Your task to perform on an android device: turn off location Image 0: 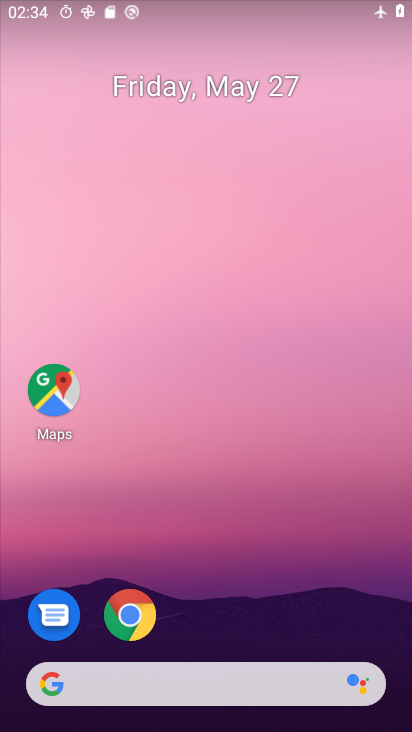
Step 0: drag from (371, 612) to (372, 241)
Your task to perform on an android device: turn off location Image 1: 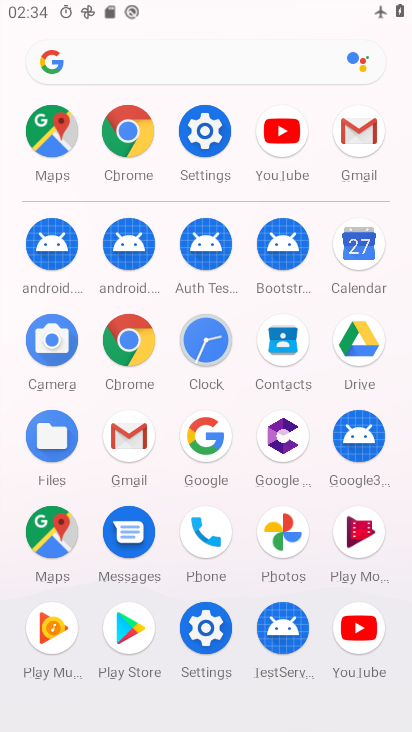
Step 1: click (202, 631)
Your task to perform on an android device: turn off location Image 2: 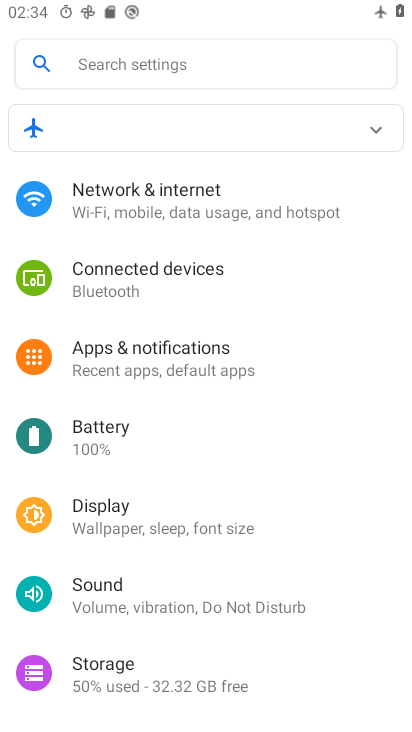
Step 2: drag from (331, 644) to (330, 520)
Your task to perform on an android device: turn off location Image 3: 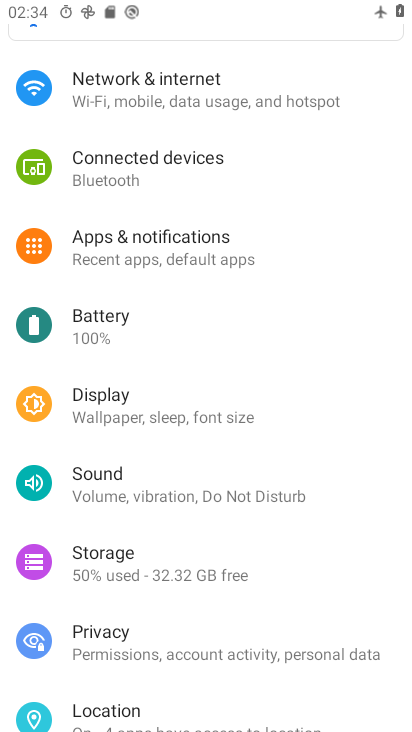
Step 3: drag from (328, 632) to (330, 528)
Your task to perform on an android device: turn off location Image 4: 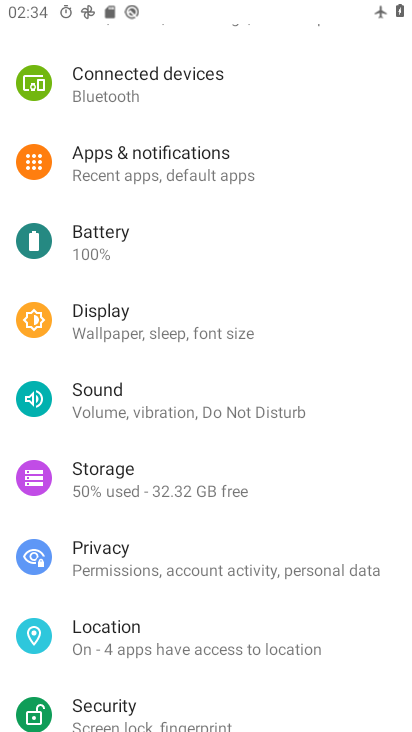
Step 4: drag from (351, 649) to (355, 519)
Your task to perform on an android device: turn off location Image 5: 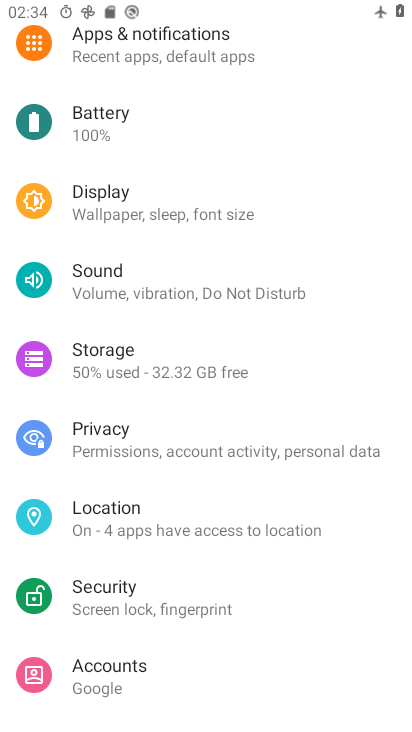
Step 5: drag from (349, 618) to (357, 512)
Your task to perform on an android device: turn off location Image 6: 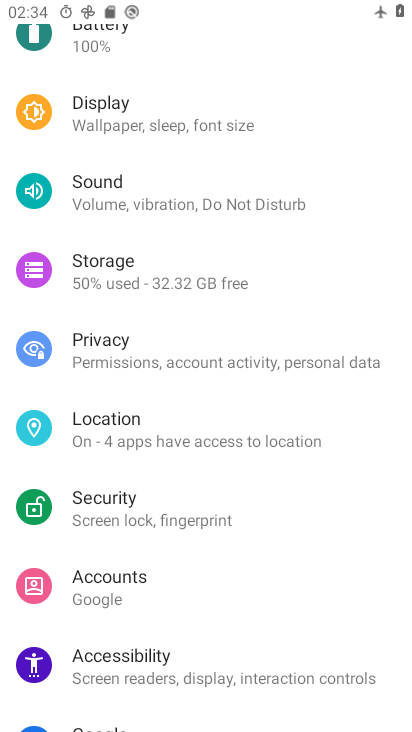
Step 6: drag from (359, 640) to (360, 517)
Your task to perform on an android device: turn off location Image 7: 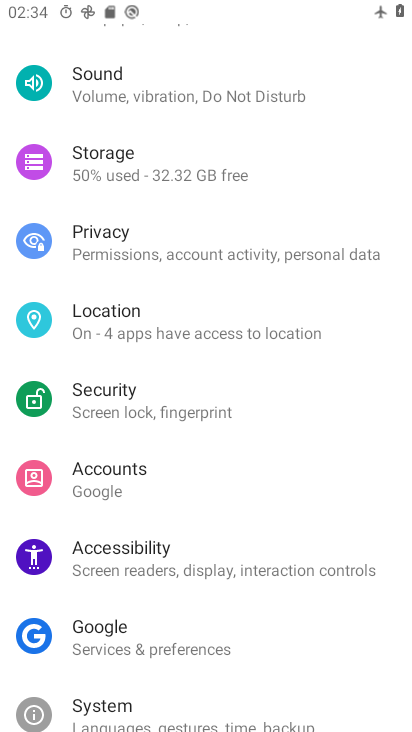
Step 7: drag from (367, 624) to (364, 462)
Your task to perform on an android device: turn off location Image 8: 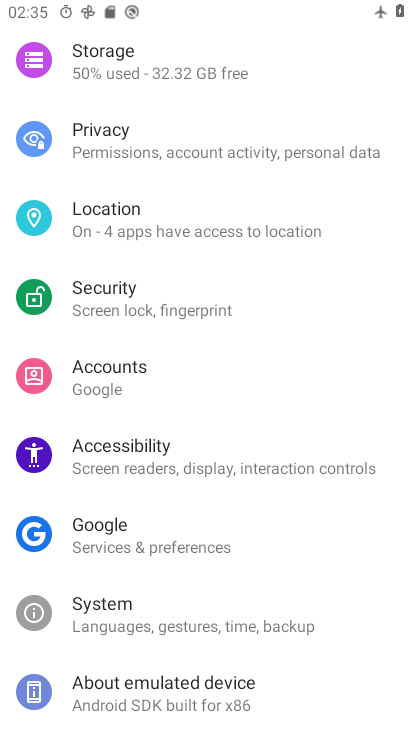
Step 8: drag from (366, 644) to (362, 397)
Your task to perform on an android device: turn off location Image 9: 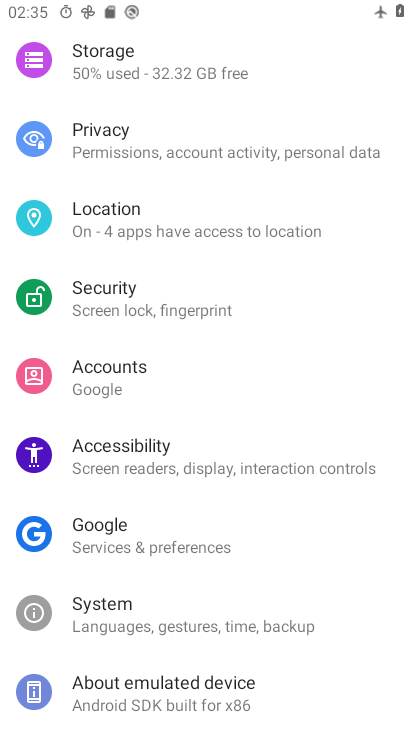
Step 9: drag from (368, 356) to (344, 519)
Your task to perform on an android device: turn off location Image 10: 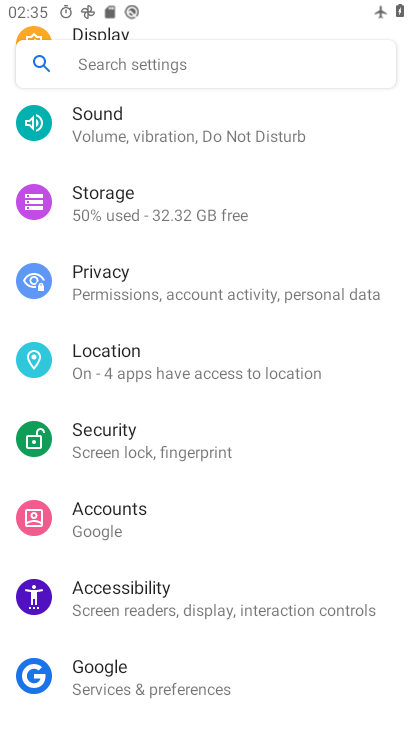
Step 10: drag from (343, 336) to (331, 496)
Your task to perform on an android device: turn off location Image 11: 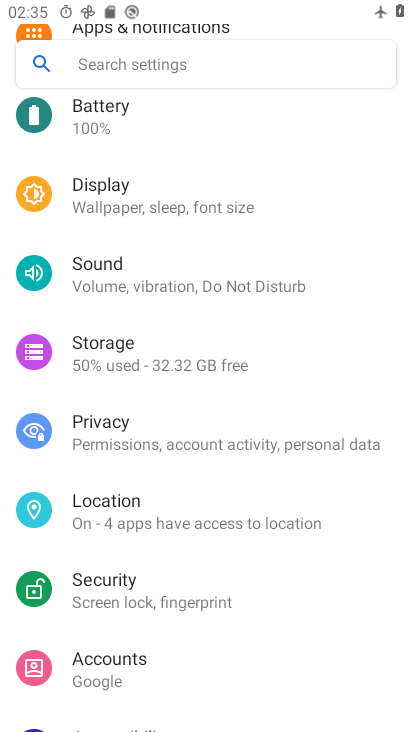
Step 11: click (284, 513)
Your task to perform on an android device: turn off location Image 12: 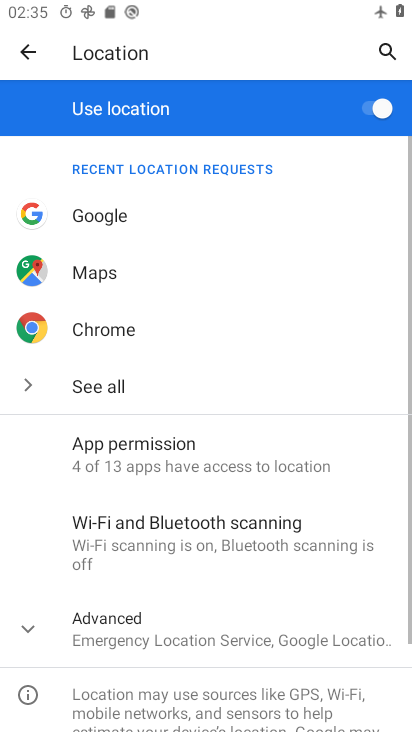
Step 12: click (376, 110)
Your task to perform on an android device: turn off location Image 13: 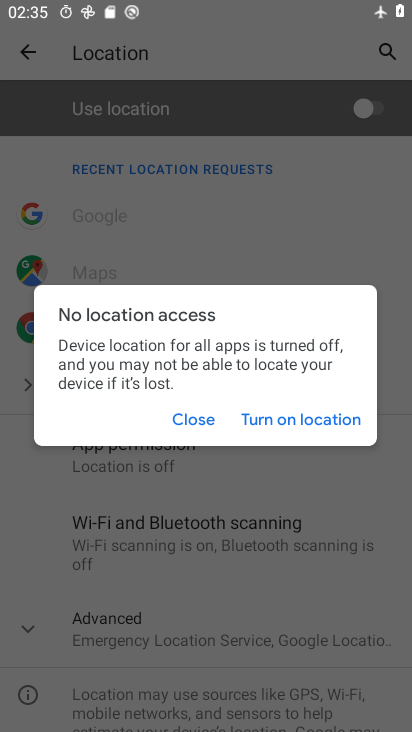
Step 13: task complete